Your task to perform on an android device: Is it going to rain tomorrow? Image 0: 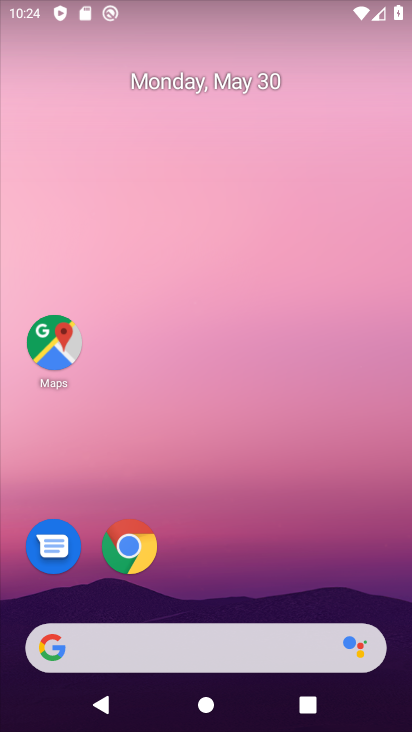
Step 0: press home button
Your task to perform on an android device: Is it going to rain tomorrow? Image 1: 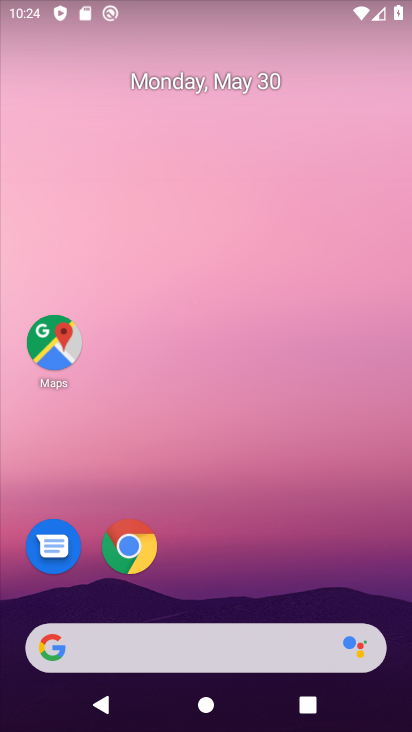
Step 1: drag from (1, 238) to (408, 282)
Your task to perform on an android device: Is it going to rain tomorrow? Image 2: 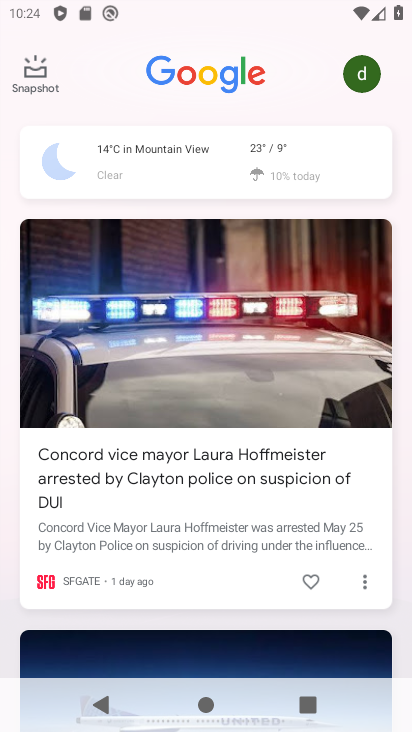
Step 2: click (218, 158)
Your task to perform on an android device: Is it going to rain tomorrow? Image 3: 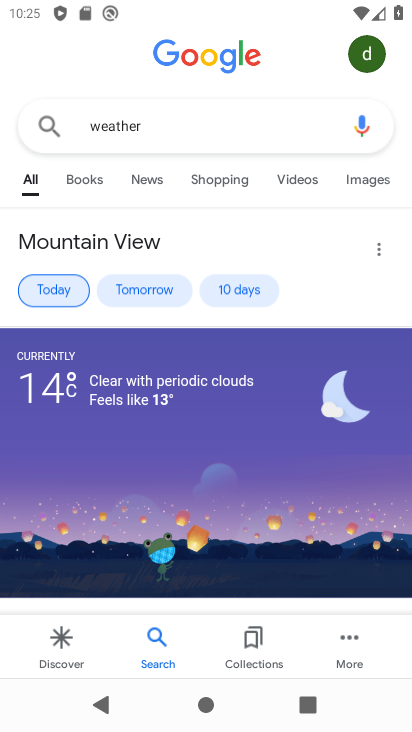
Step 3: click (143, 292)
Your task to perform on an android device: Is it going to rain tomorrow? Image 4: 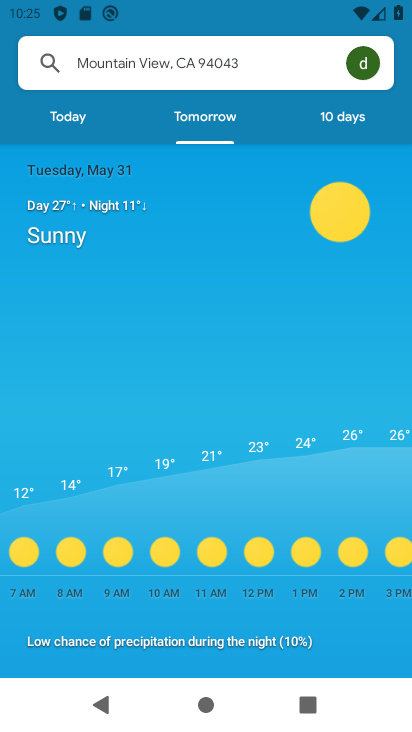
Step 4: task complete